Your task to perform on an android device: turn on wifi Image 0: 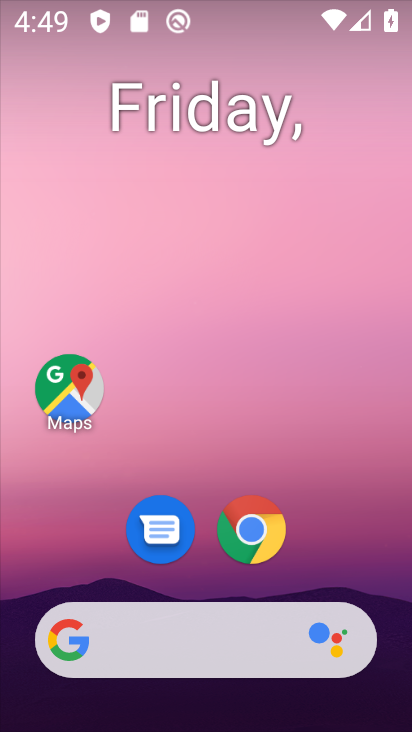
Step 0: drag from (326, 385) to (241, 33)
Your task to perform on an android device: turn on wifi Image 1: 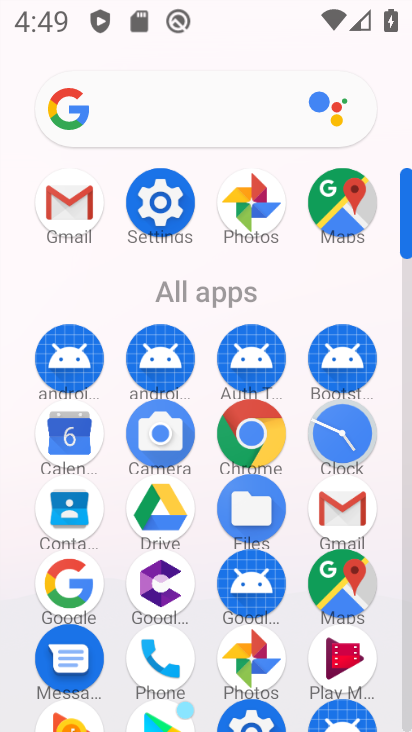
Step 1: click (159, 181)
Your task to perform on an android device: turn on wifi Image 2: 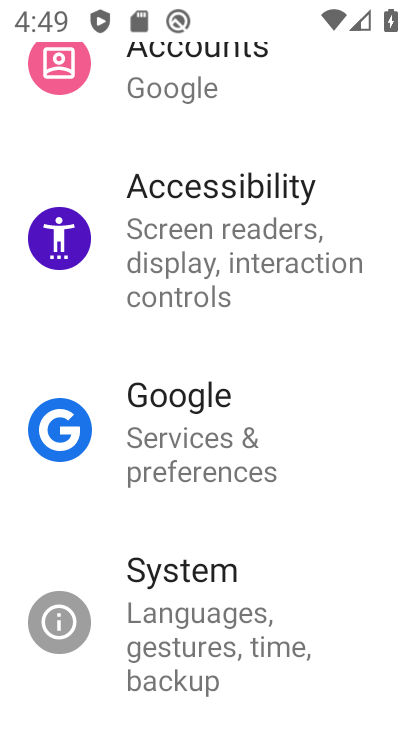
Step 2: drag from (264, 112) to (290, 632)
Your task to perform on an android device: turn on wifi Image 3: 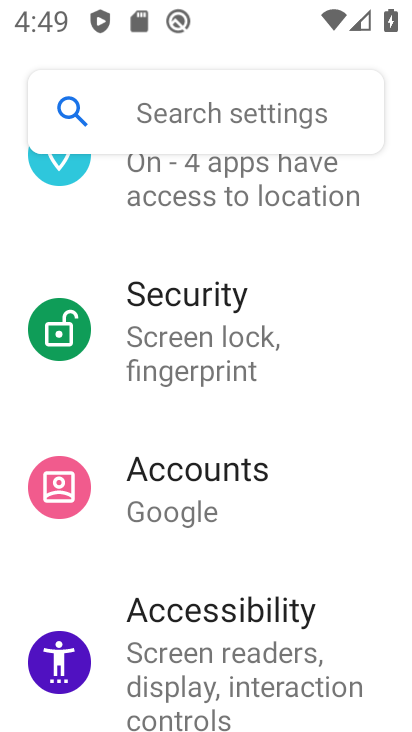
Step 3: drag from (257, 228) to (249, 720)
Your task to perform on an android device: turn on wifi Image 4: 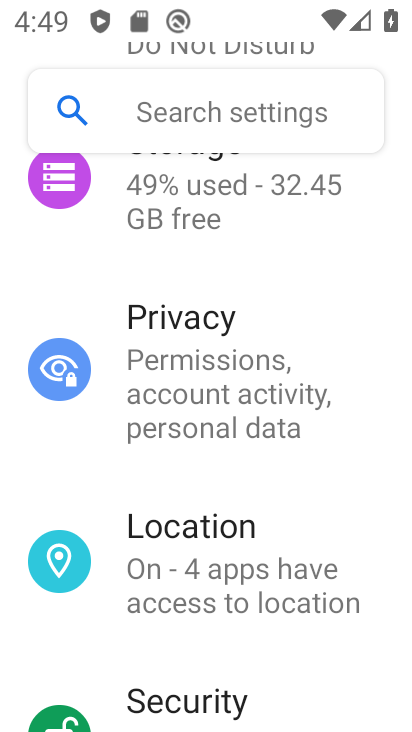
Step 4: drag from (257, 231) to (220, 725)
Your task to perform on an android device: turn on wifi Image 5: 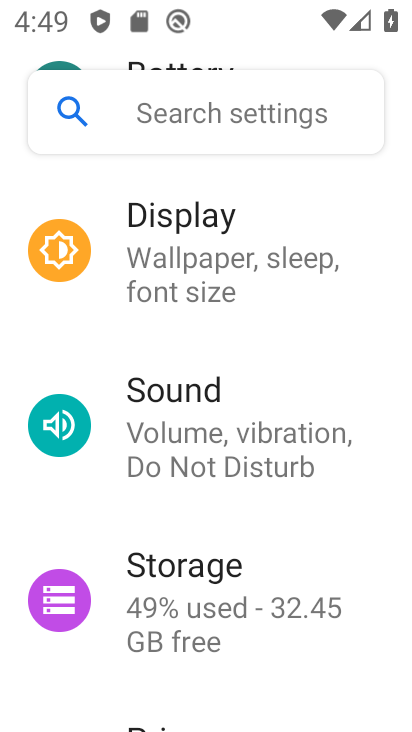
Step 5: drag from (252, 279) to (224, 722)
Your task to perform on an android device: turn on wifi Image 6: 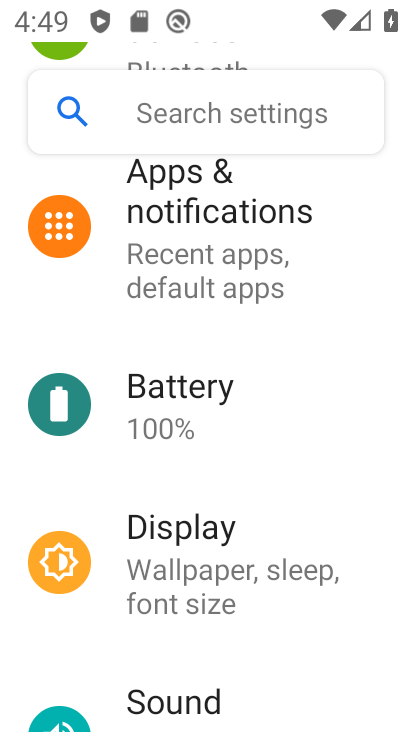
Step 6: drag from (238, 220) to (206, 714)
Your task to perform on an android device: turn on wifi Image 7: 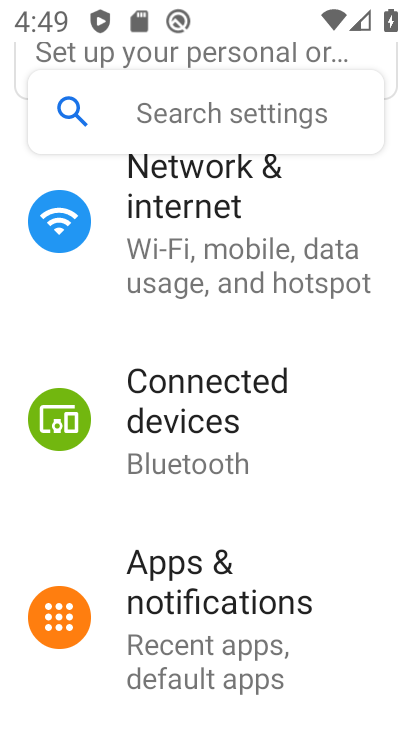
Step 7: click (219, 301)
Your task to perform on an android device: turn on wifi Image 8: 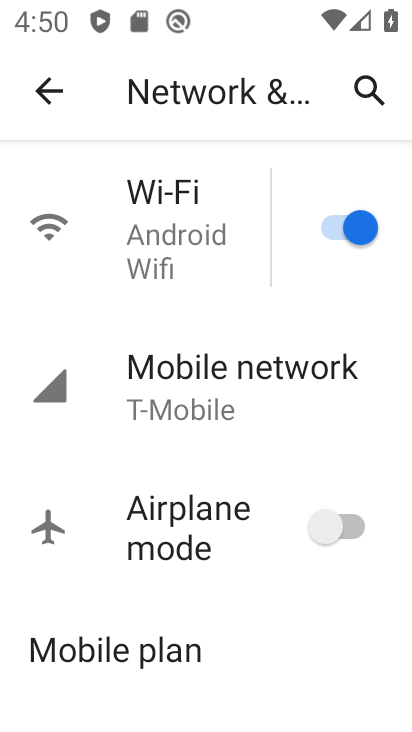
Step 8: task complete